Your task to perform on an android device: What's on my calendar today? Image 0: 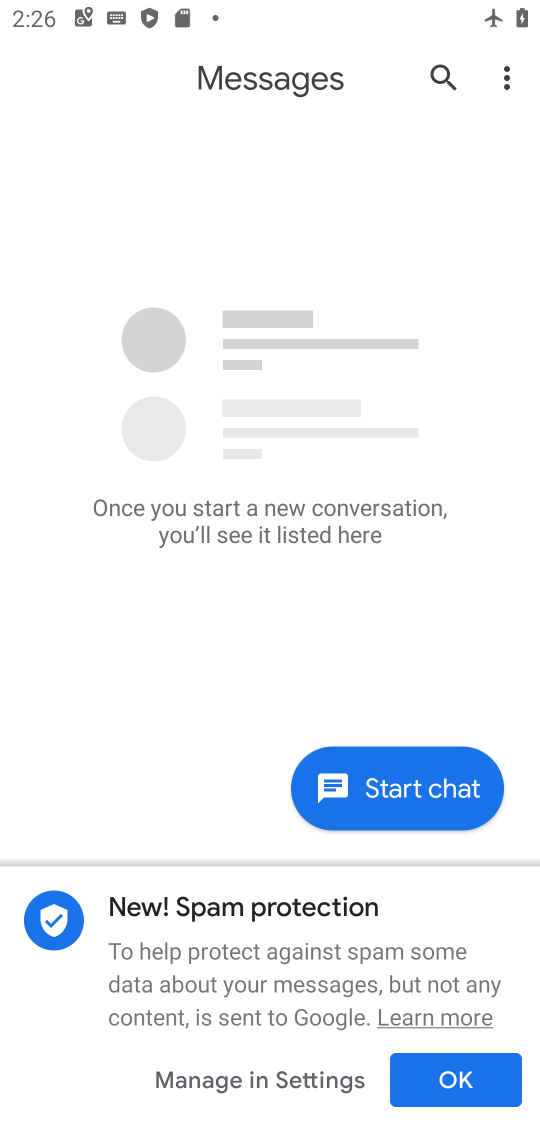
Step 0: press home button
Your task to perform on an android device: What's on my calendar today? Image 1: 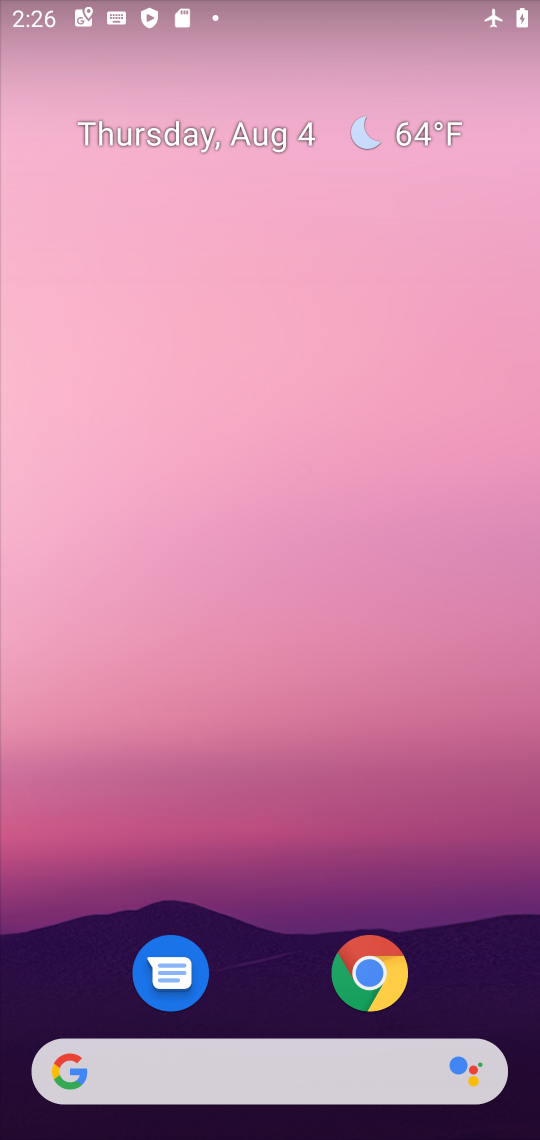
Step 1: drag from (324, 1039) to (377, 47)
Your task to perform on an android device: What's on my calendar today? Image 2: 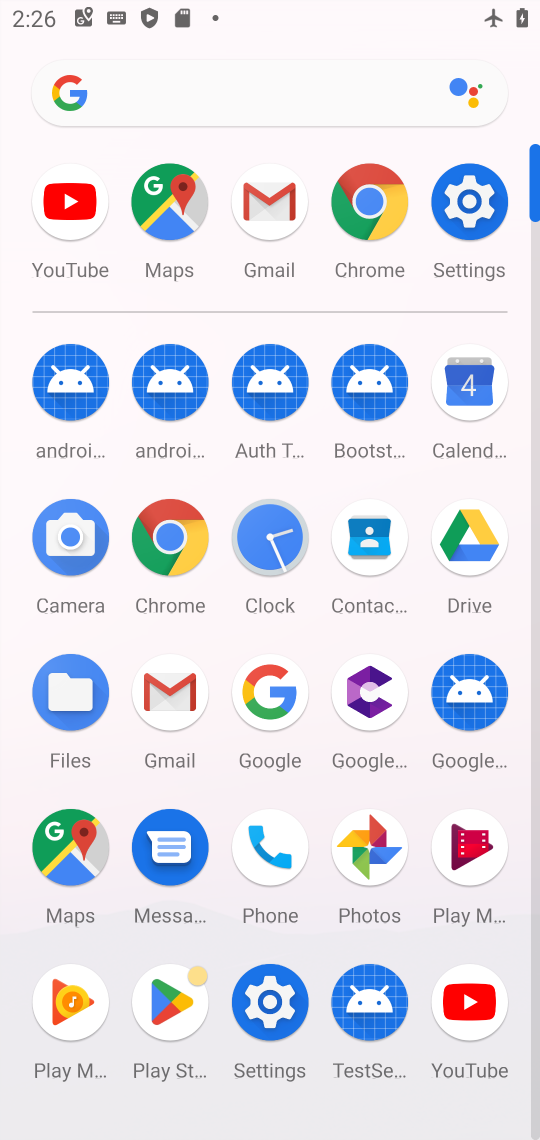
Step 2: click (472, 419)
Your task to perform on an android device: What's on my calendar today? Image 3: 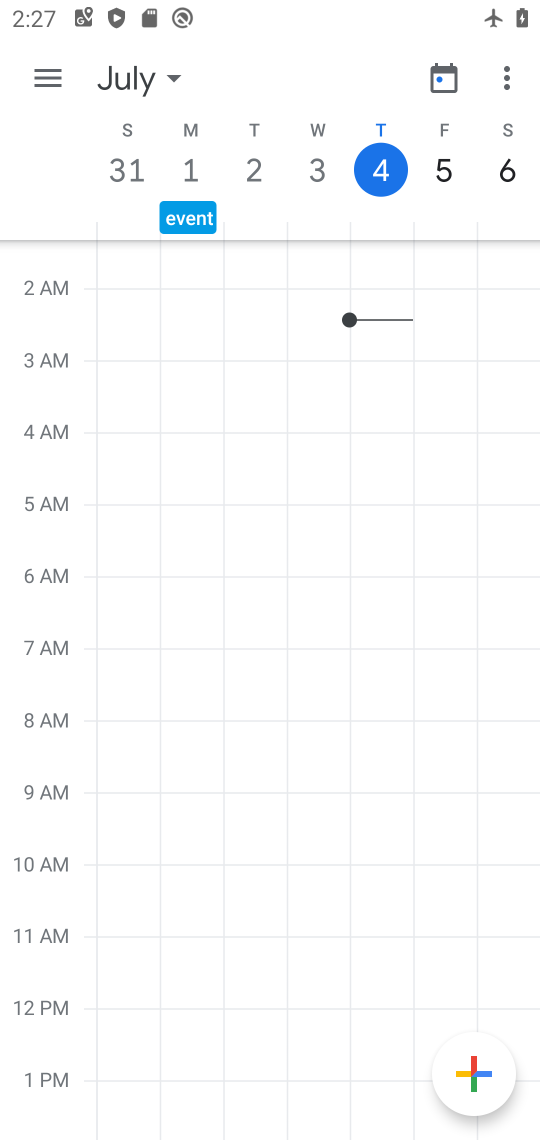
Step 3: click (384, 179)
Your task to perform on an android device: What's on my calendar today? Image 4: 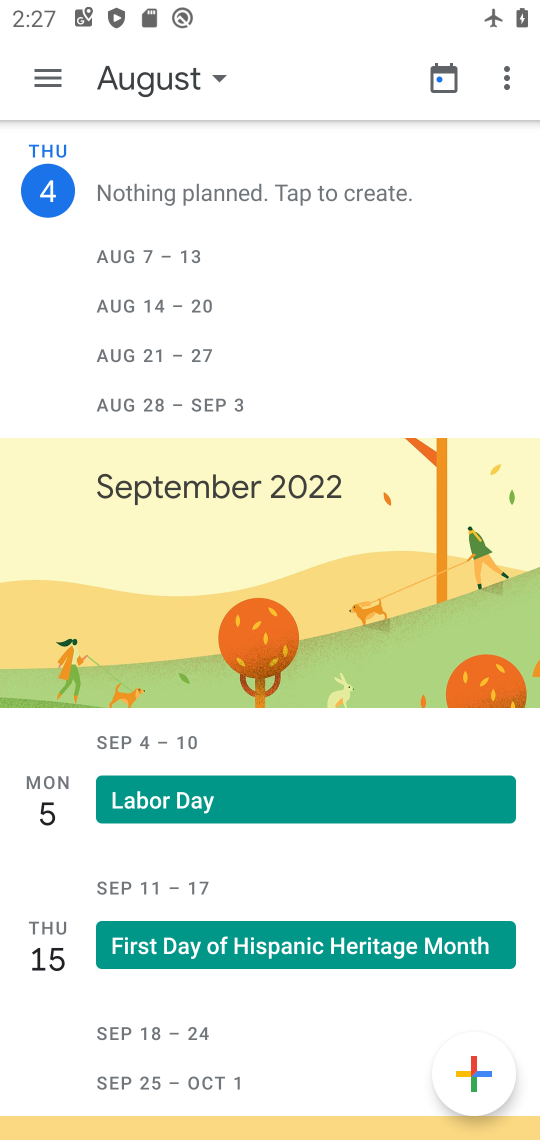
Step 4: click (51, 204)
Your task to perform on an android device: What's on my calendar today? Image 5: 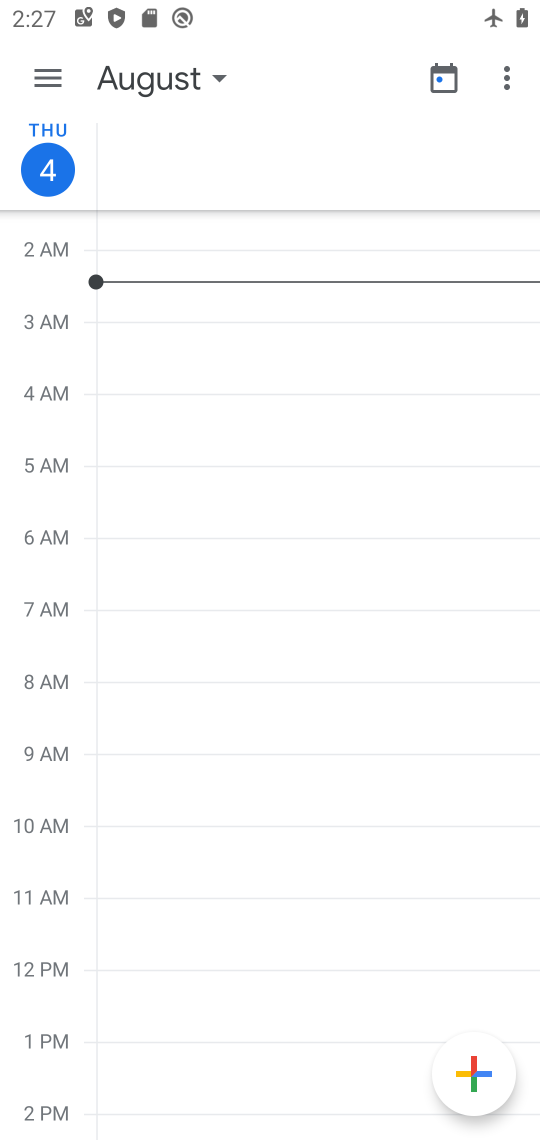
Step 5: task complete